Your task to perform on an android device: open a bookmark in the chrome app Image 0: 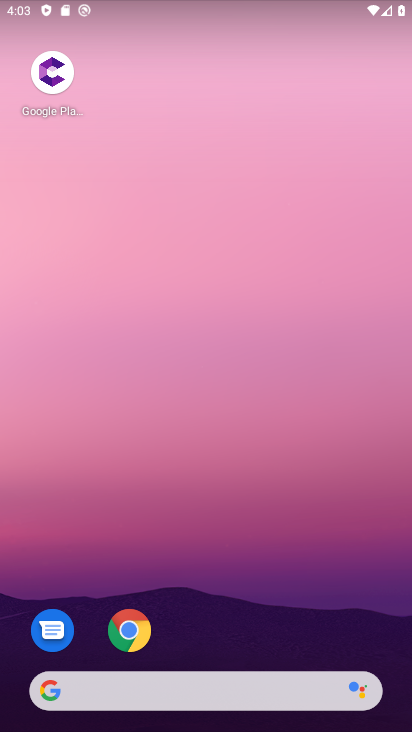
Step 0: click (129, 629)
Your task to perform on an android device: open a bookmark in the chrome app Image 1: 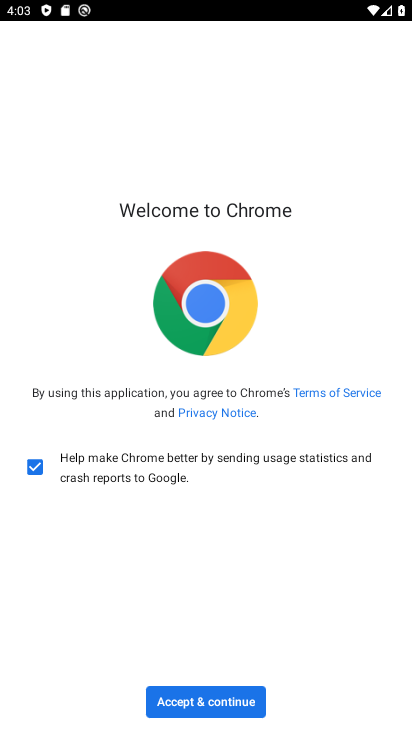
Step 1: click (196, 706)
Your task to perform on an android device: open a bookmark in the chrome app Image 2: 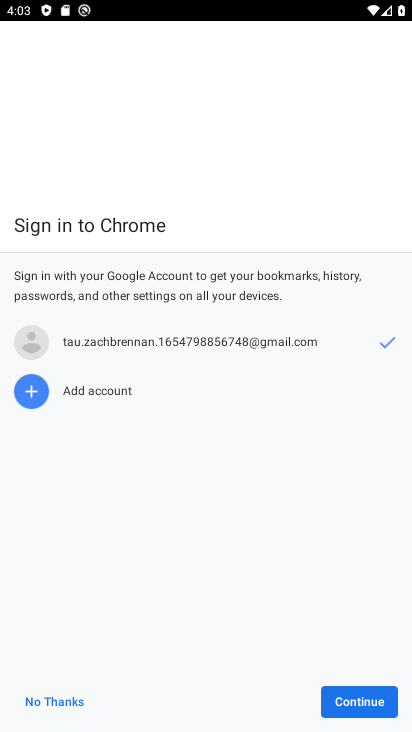
Step 2: click (374, 691)
Your task to perform on an android device: open a bookmark in the chrome app Image 3: 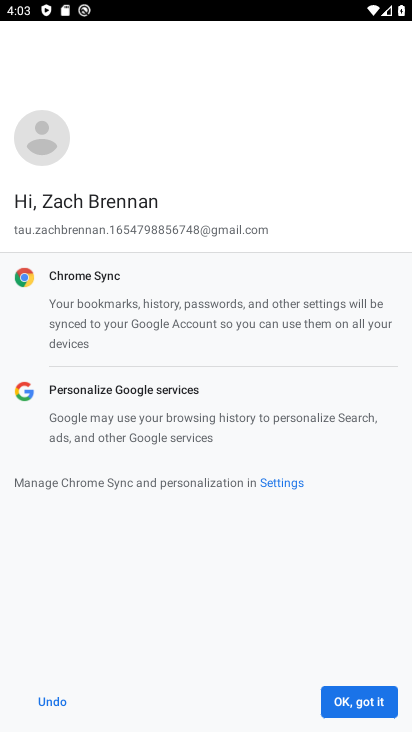
Step 3: click (356, 698)
Your task to perform on an android device: open a bookmark in the chrome app Image 4: 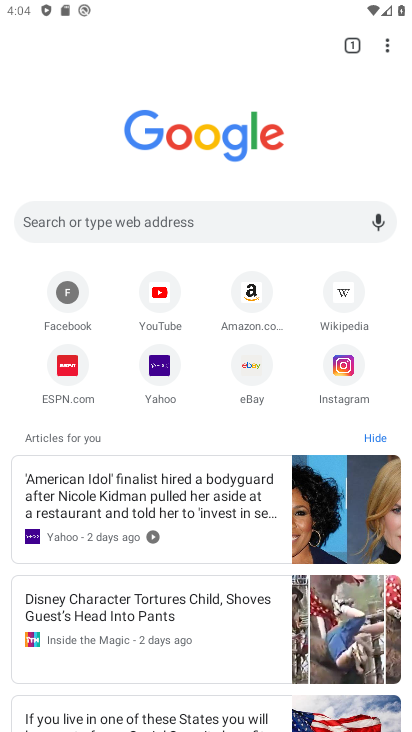
Step 4: click (387, 46)
Your task to perform on an android device: open a bookmark in the chrome app Image 5: 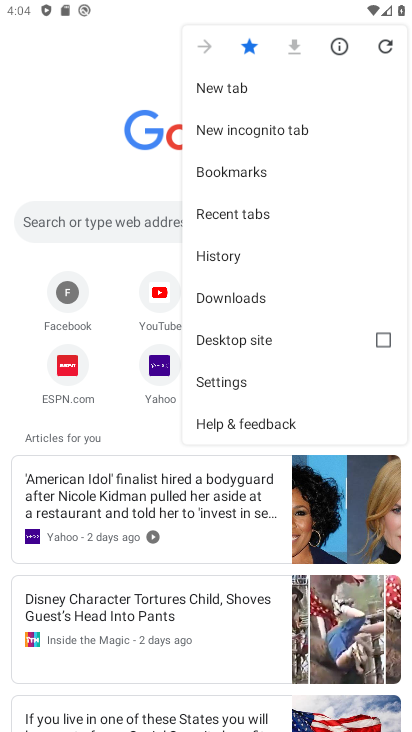
Step 5: click (273, 166)
Your task to perform on an android device: open a bookmark in the chrome app Image 6: 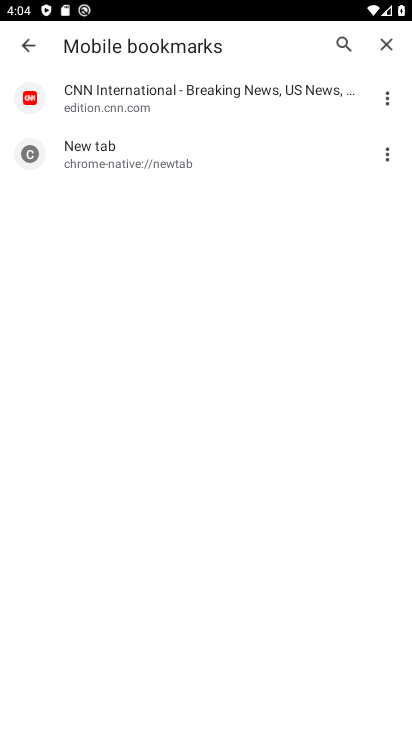
Step 6: task complete